Your task to perform on an android device: turn off data saver in the chrome app Image 0: 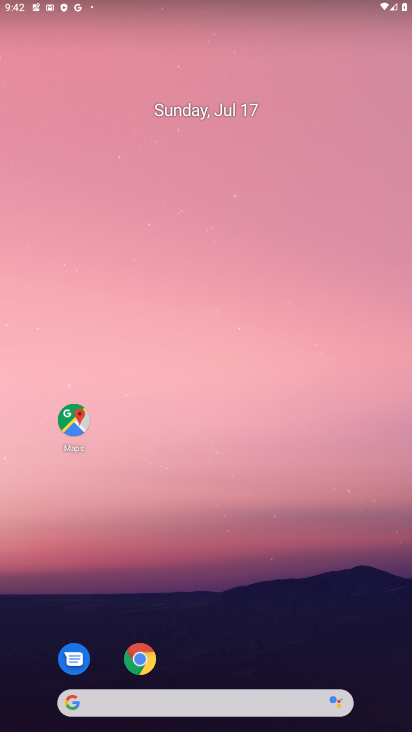
Step 0: drag from (202, 679) to (272, 189)
Your task to perform on an android device: turn off data saver in the chrome app Image 1: 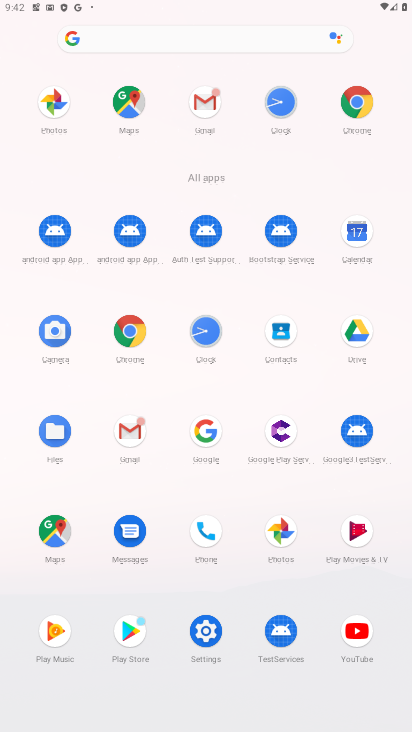
Step 1: click (133, 339)
Your task to perform on an android device: turn off data saver in the chrome app Image 2: 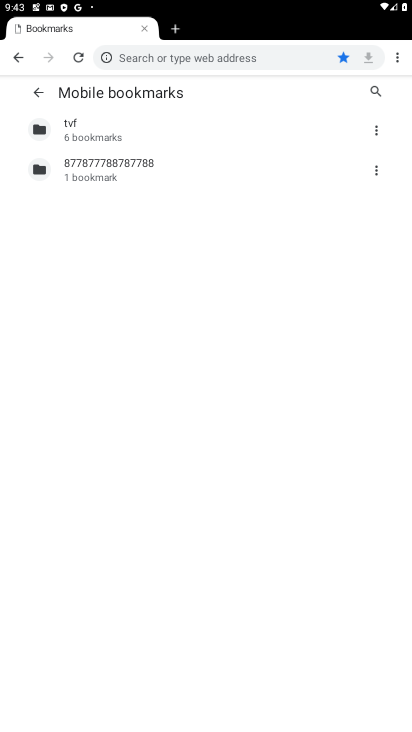
Step 2: press back button
Your task to perform on an android device: turn off data saver in the chrome app Image 3: 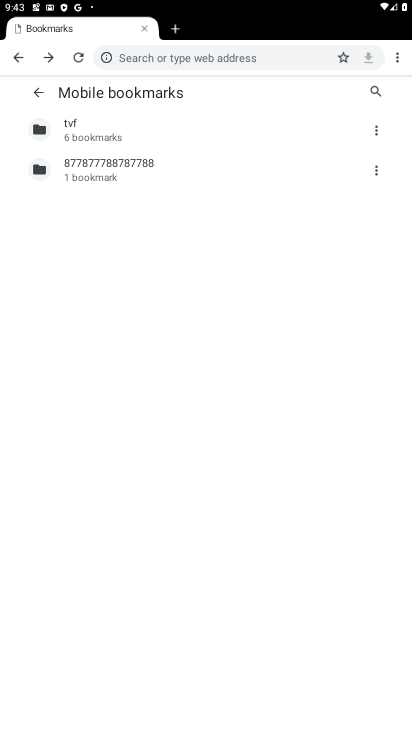
Step 3: press back button
Your task to perform on an android device: turn off data saver in the chrome app Image 4: 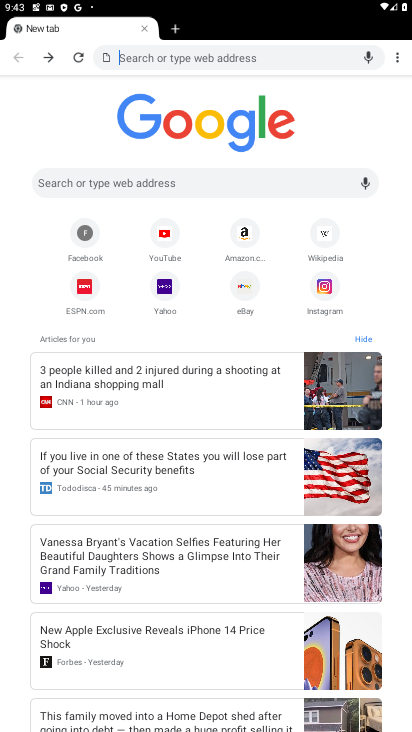
Step 4: drag from (397, 54) to (343, 258)
Your task to perform on an android device: turn off data saver in the chrome app Image 5: 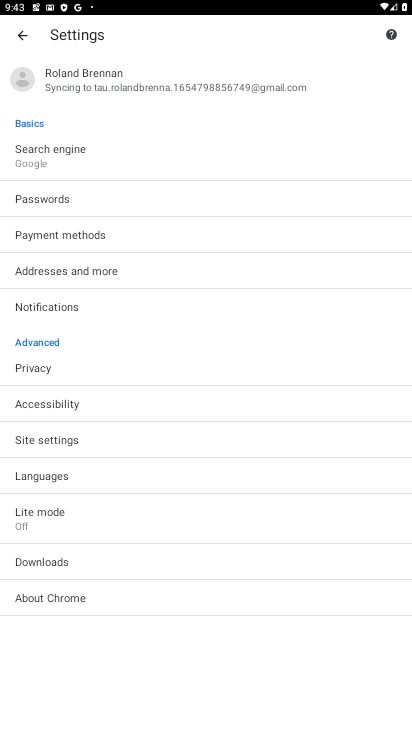
Step 5: click (80, 522)
Your task to perform on an android device: turn off data saver in the chrome app Image 6: 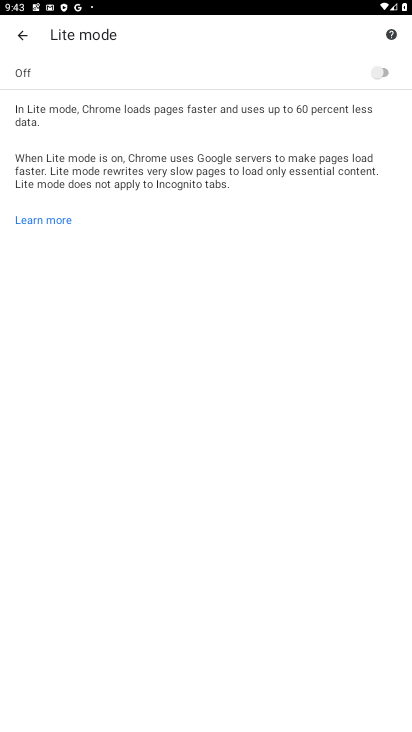
Step 6: task complete